Your task to perform on an android device: find which apps use the phone's location Image 0: 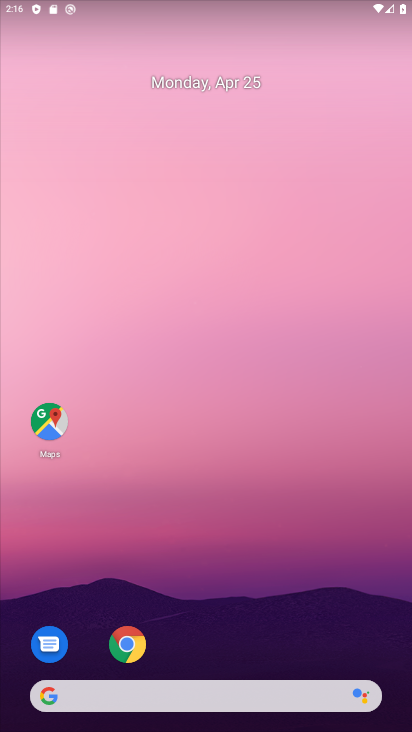
Step 0: drag from (238, 628) to (199, 253)
Your task to perform on an android device: find which apps use the phone's location Image 1: 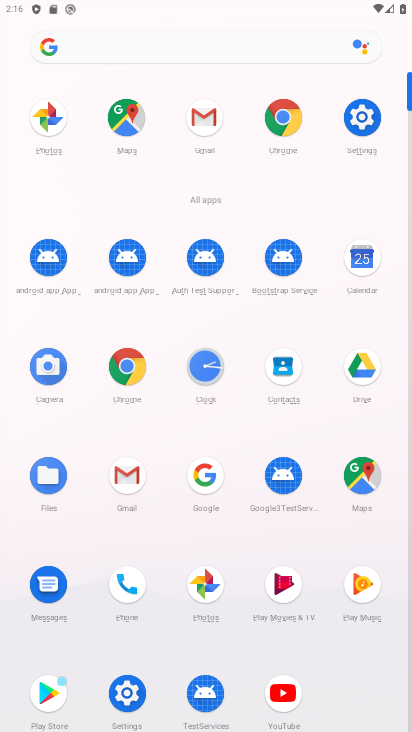
Step 1: click (367, 125)
Your task to perform on an android device: find which apps use the phone's location Image 2: 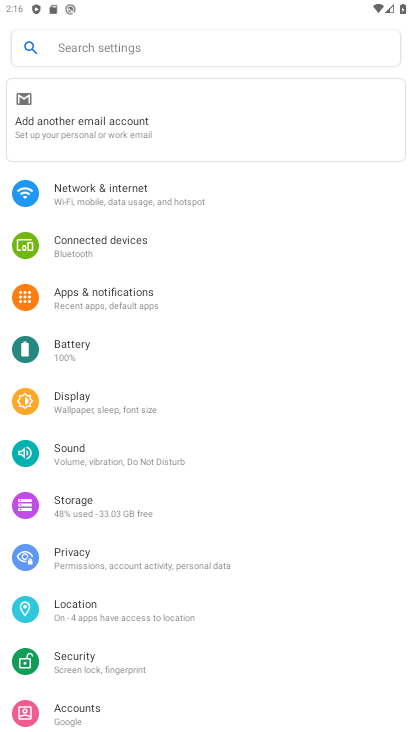
Step 2: click (117, 617)
Your task to perform on an android device: find which apps use the phone's location Image 3: 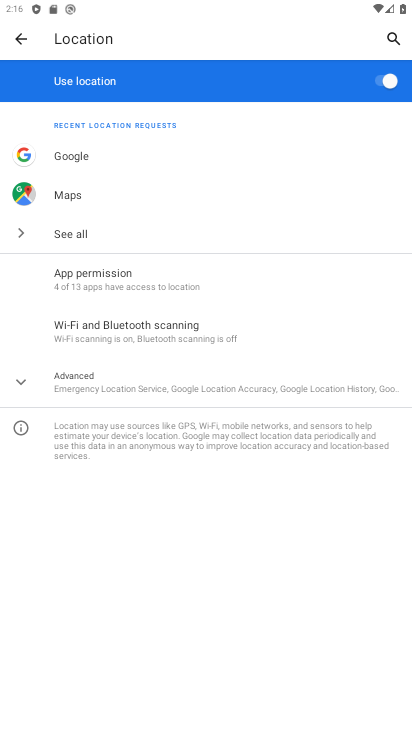
Step 3: click (209, 274)
Your task to perform on an android device: find which apps use the phone's location Image 4: 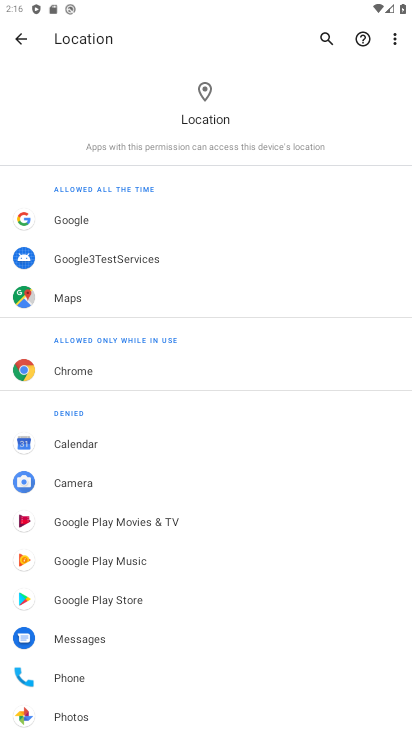
Step 4: task complete